Your task to perform on an android device: change timer sound Image 0: 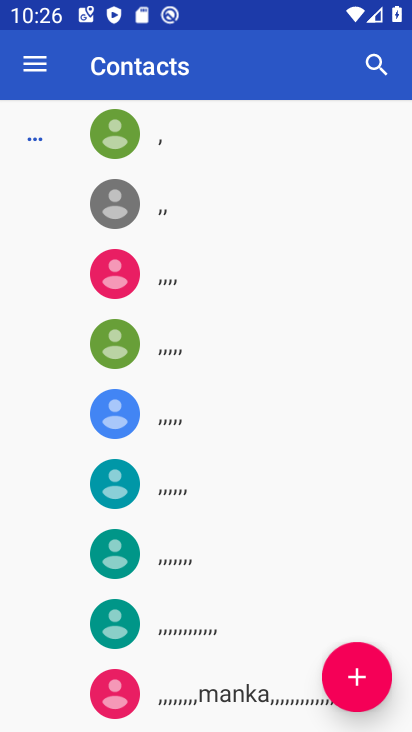
Step 0: press home button
Your task to perform on an android device: change timer sound Image 1: 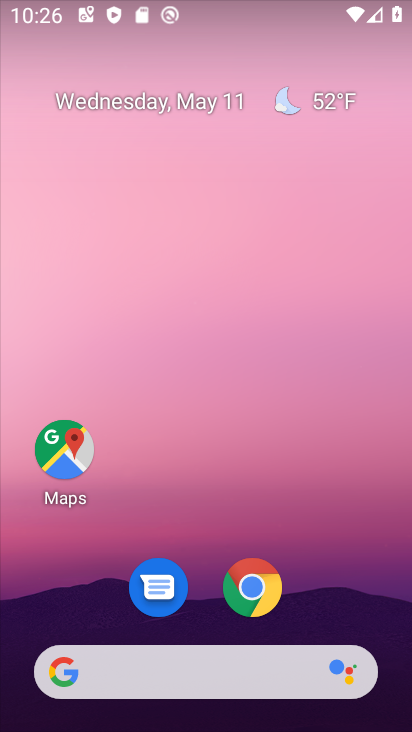
Step 1: drag from (238, 696) to (283, 151)
Your task to perform on an android device: change timer sound Image 2: 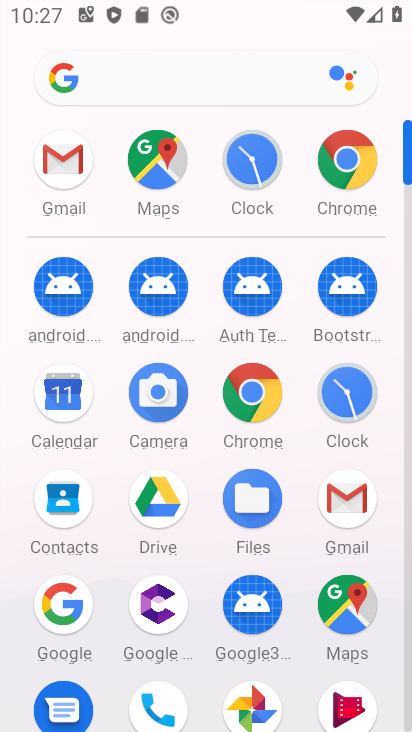
Step 2: drag from (106, 461) to (105, 364)
Your task to perform on an android device: change timer sound Image 3: 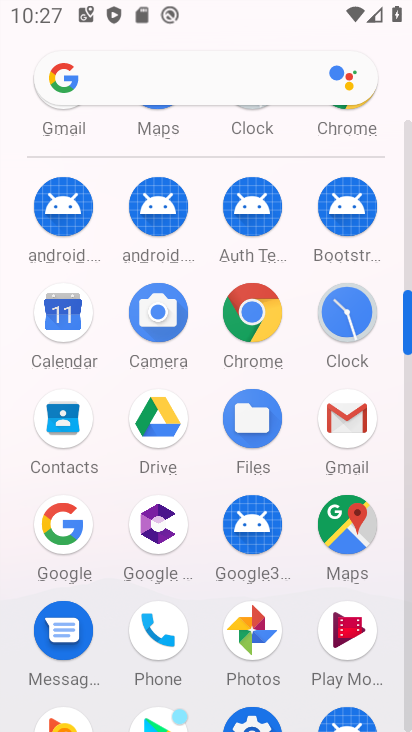
Step 3: drag from (198, 563) to (169, 410)
Your task to perform on an android device: change timer sound Image 4: 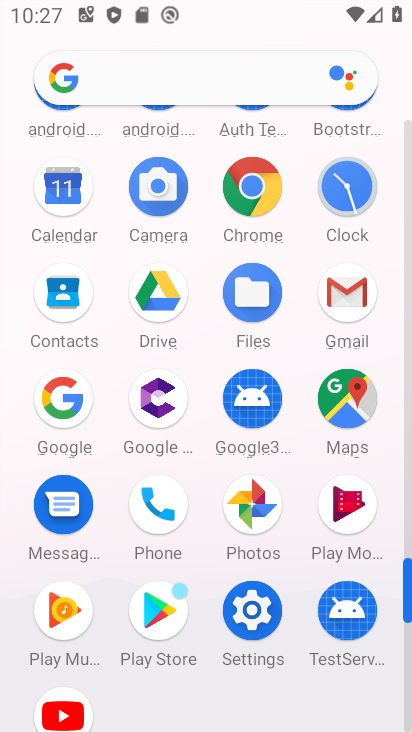
Step 4: click (351, 206)
Your task to perform on an android device: change timer sound Image 5: 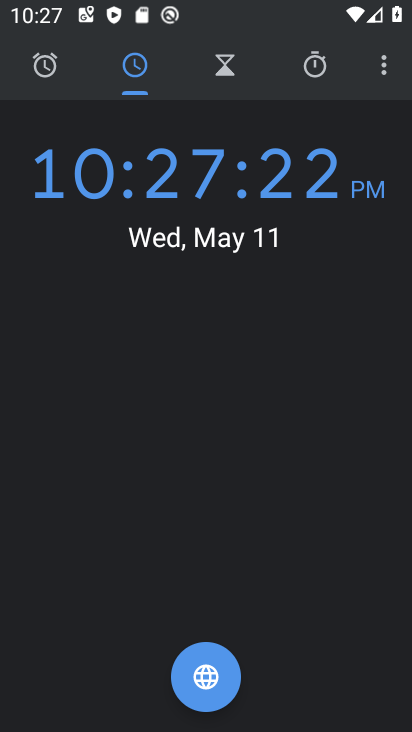
Step 5: click (378, 75)
Your task to perform on an android device: change timer sound Image 6: 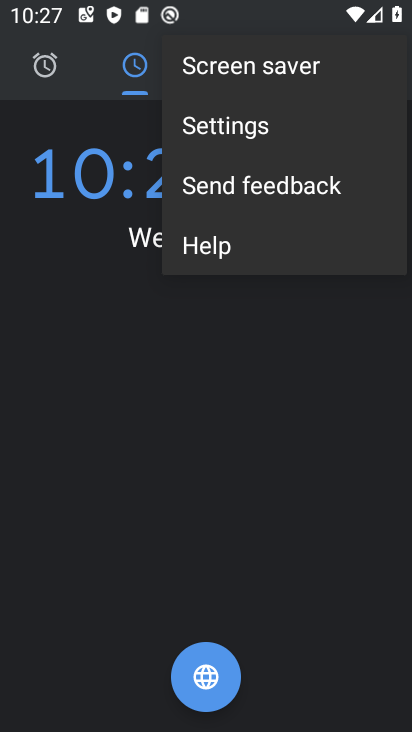
Step 6: click (296, 131)
Your task to perform on an android device: change timer sound Image 7: 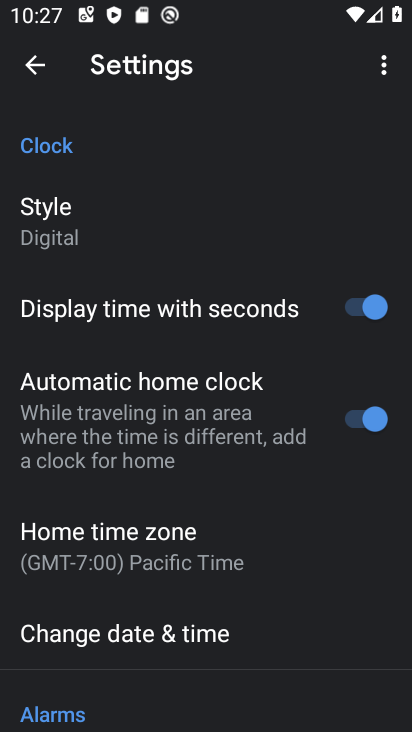
Step 7: drag from (200, 614) to (193, 276)
Your task to perform on an android device: change timer sound Image 8: 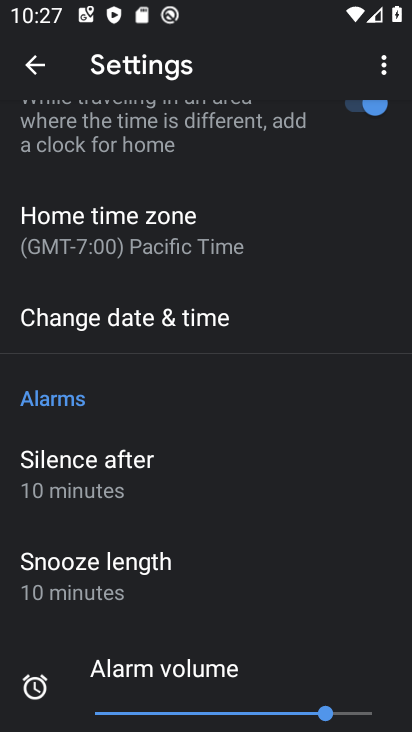
Step 8: drag from (162, 493) to (203, 333)
Your task to perform on an android device: change timer sound Image 9: 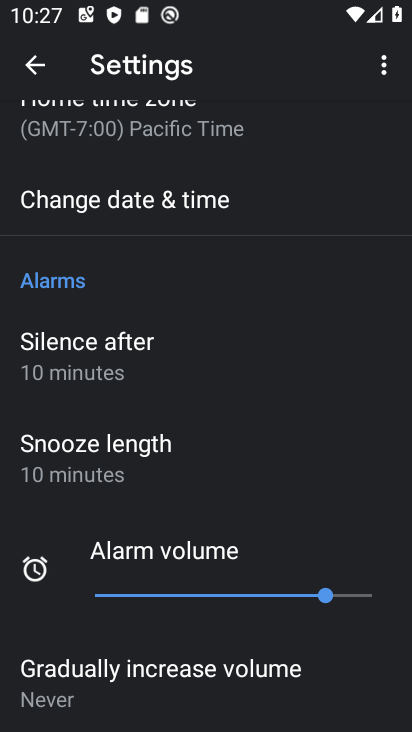
Step 9: drag from (206, 498) to (227, 338)
Your task to perform on an android device: change timer sound Image 10: 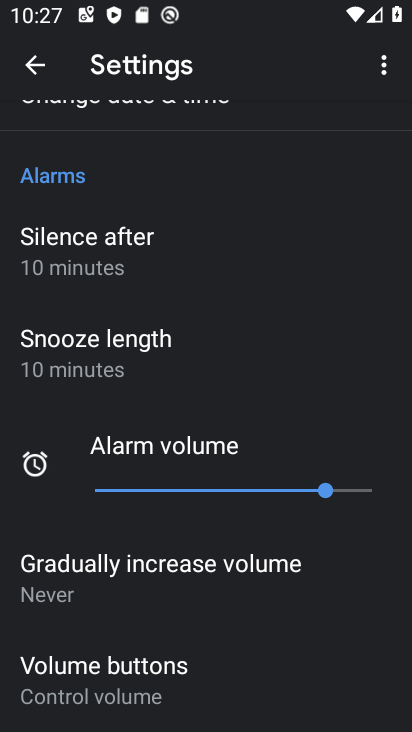
Step 10: drag from (165, 622) to (207, 357)
Your task to perform on an android device: change timer sound Image 11: 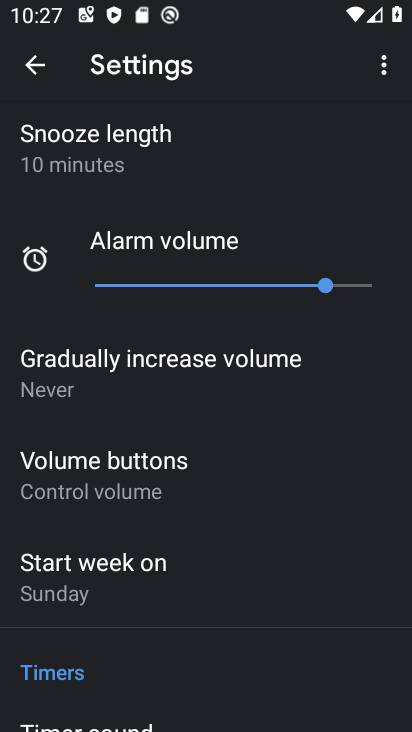
Step 11: drag from (142, 640) to (189, 489)
Your task to perform on an android device: change timer sound Image 12: 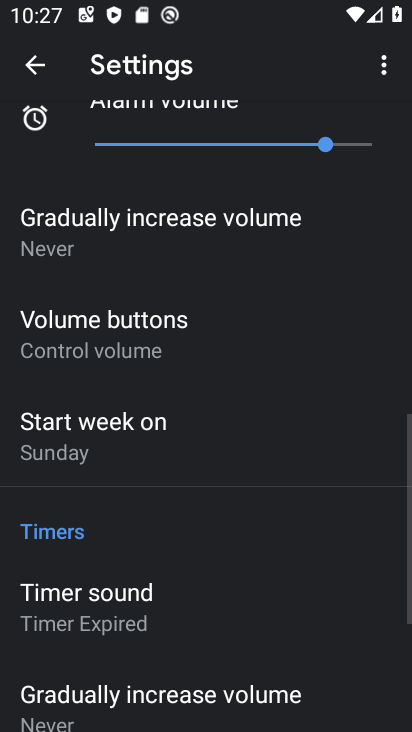
Step 12: click (161, 606)
Your task to perform on an android device: change timer sound Image 13: 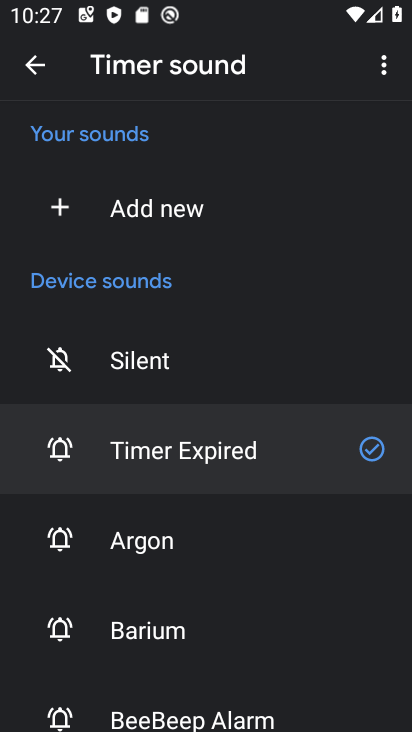
Step 13: click (165, 614)
Your task to perform on an android device: change timer sound Image 14: 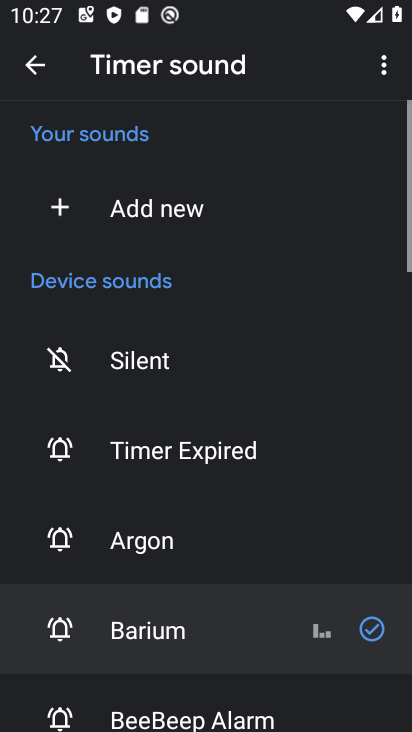
Step 14: task complete